Your task to perform on an android device: Open calendar and show me the second week of next month Image 0: 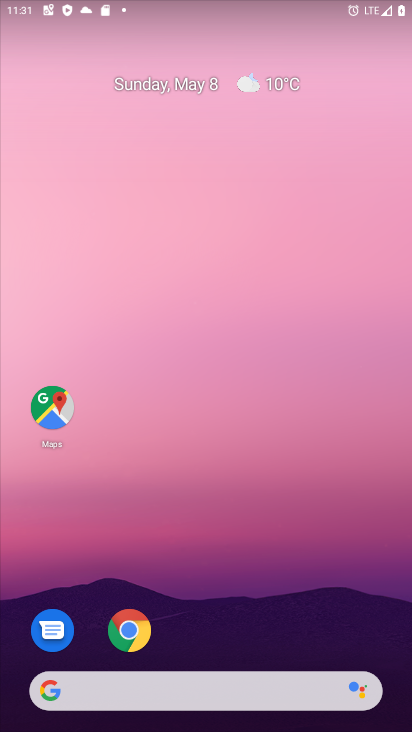
Step 0: drag from (375, 614) to (275, 130)
Your task to perform on an android device: Open calendar and show me the second week of next month Image 1: 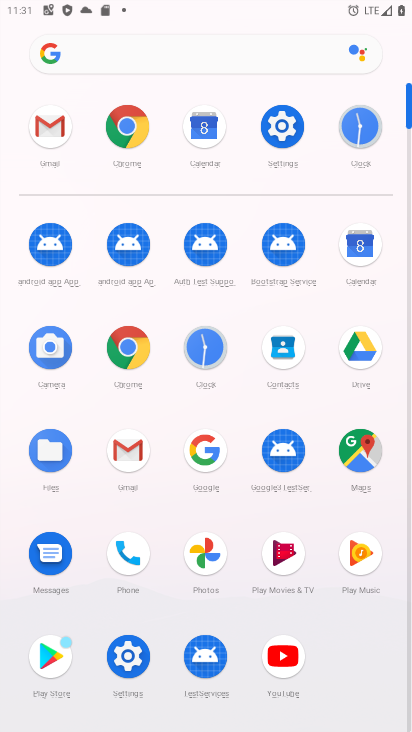
Step 1: click (360, 260)
Your task to perform on an android device: Open calendar and show me the second week of next month Image 2: 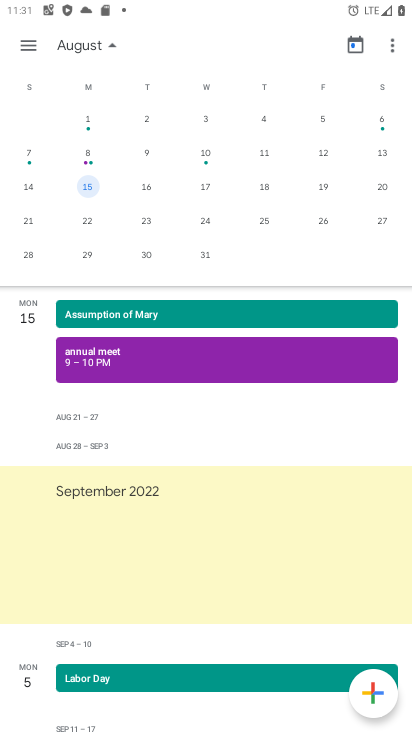
Step 2: drag from (369, 248) to (0, 195)
Your task to perform on an android device: Open calendar and show me the second week of next month Image 3: 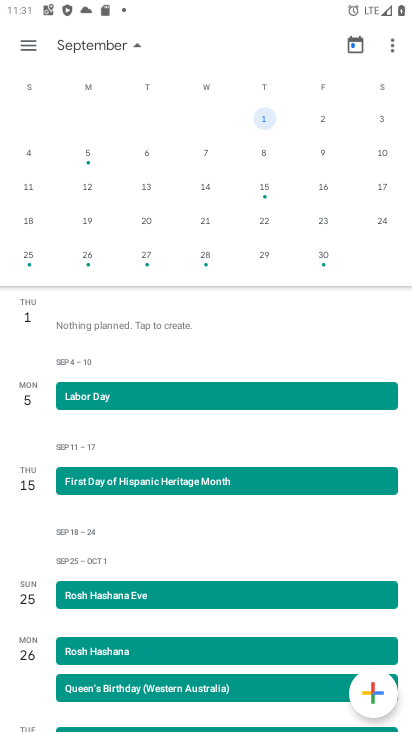
Step 3: click (85, 186)
Your task to perform on an android device: Open calendar and show me the second week of next month Image 4: 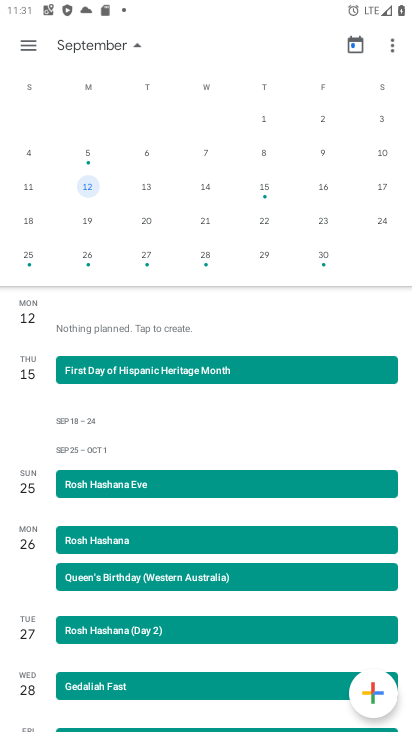
Step 4: task complete